Your task to perform on an android device: When is my next appointment? Image 0: 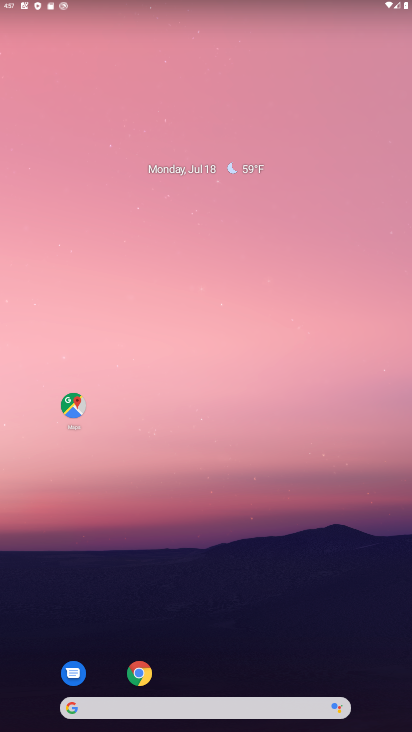
Step 0: drag from (279, 548) to (291, 89)
Your task to perform on an android device: When is my next appointment? Image 1: 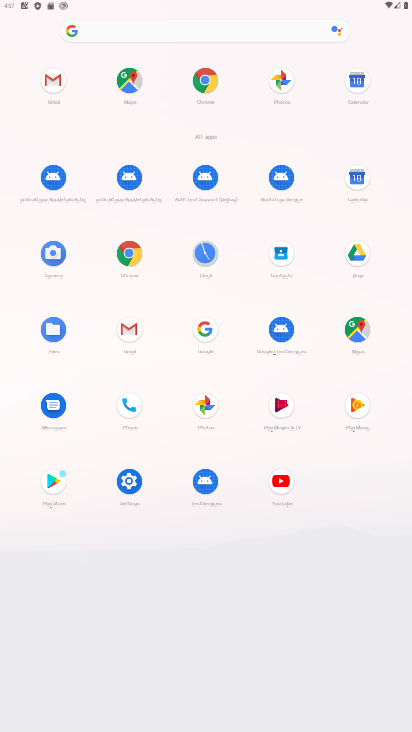
Step 1: click (361, 175)
Your task to perform on an android device: When is my next appointment? Image 2: 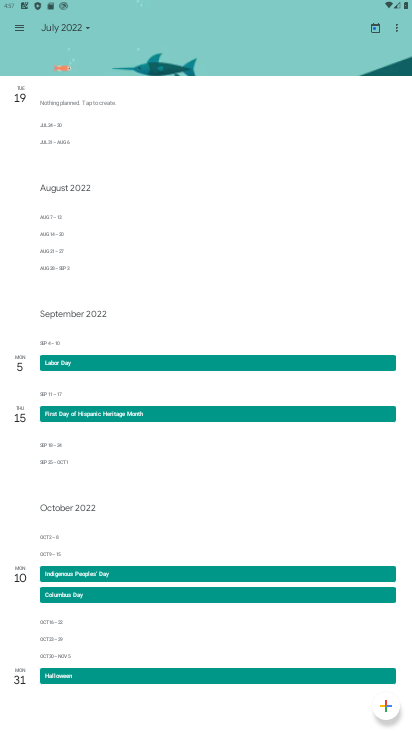
Step 2: click (72, 23)
Your task to perform on an android device: When is my next appointment? Image 3: 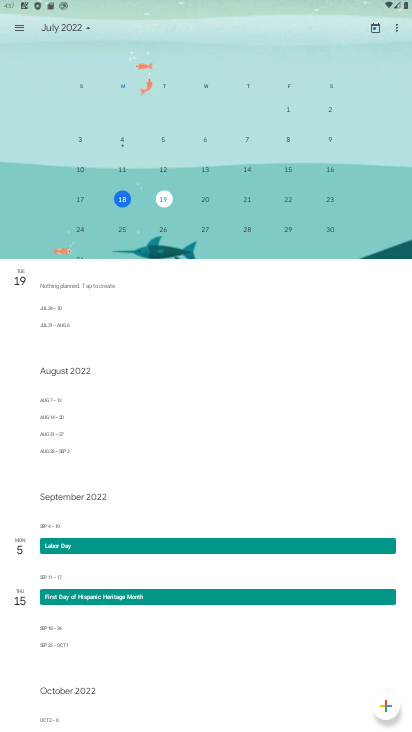
Step 3: task complete